Your task to perform on an android device: Add "bose soundsport free" to the cart on bestbuy, then select checkout. Image 0: 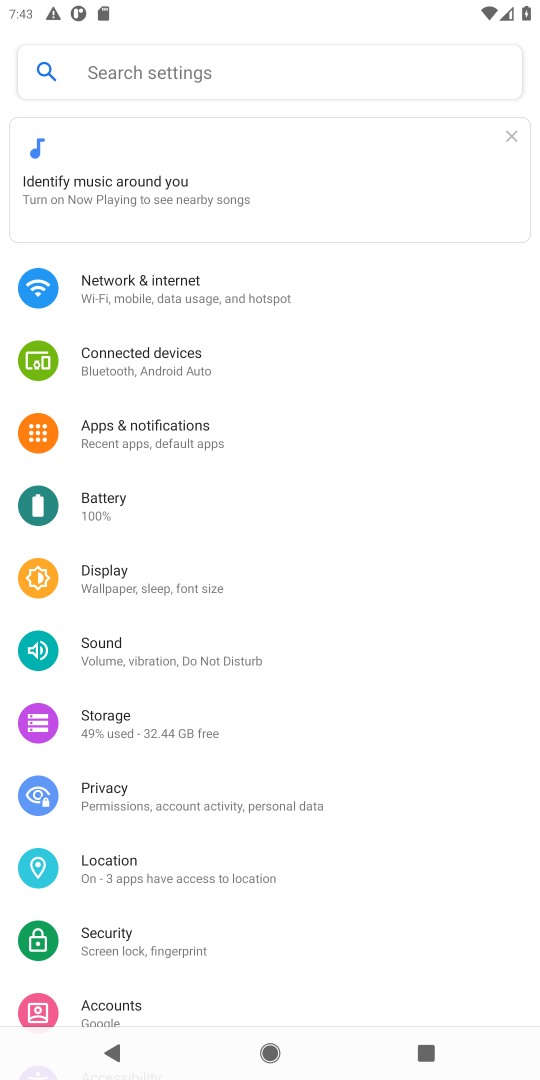
Step 0: press home button
Your task to perform on an android device: Add "bose soundsport free" to the cart on bestbuy, then select checkout. Image 1: 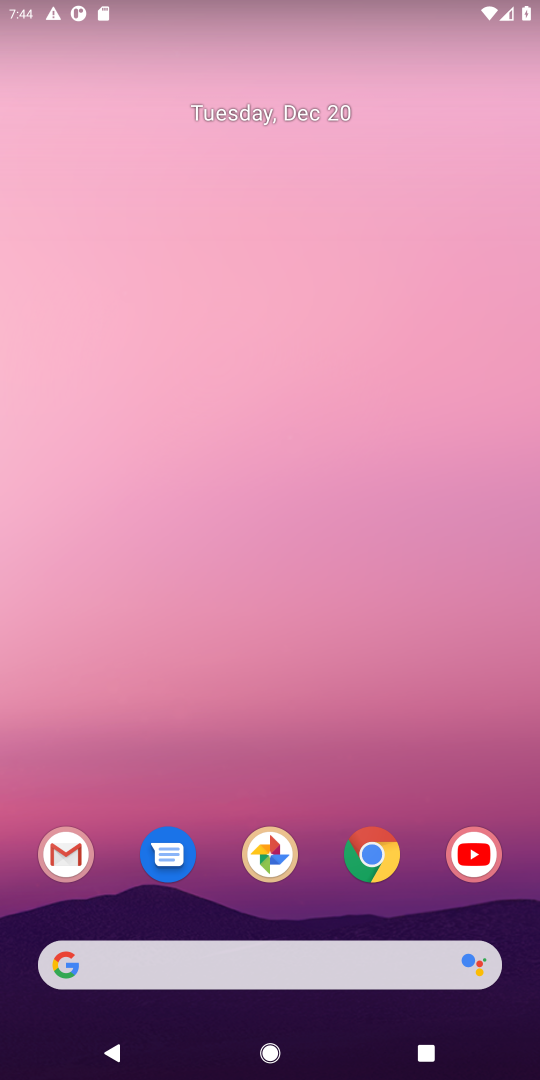
Step 1: click (383, 866)
Your task to perform on an android device: Add "bose soundsport free" to the cart on bestbuy, then select checkout. Image 2: 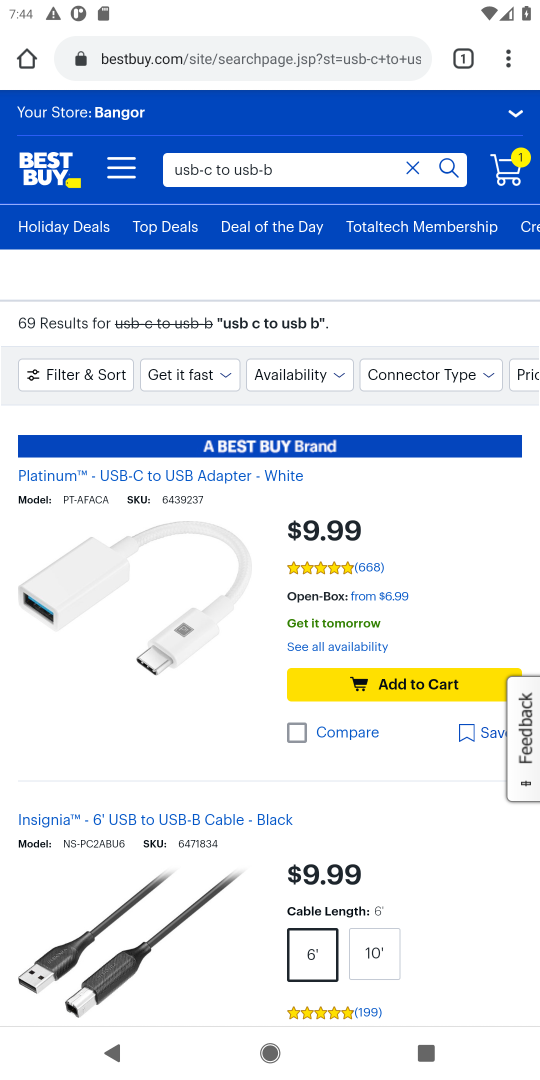
Step 2: click (220, 172)
Your task to perform on an android device: Add "bose soundsport free" to the cart on bestbuy, then select checkout. Image 3: 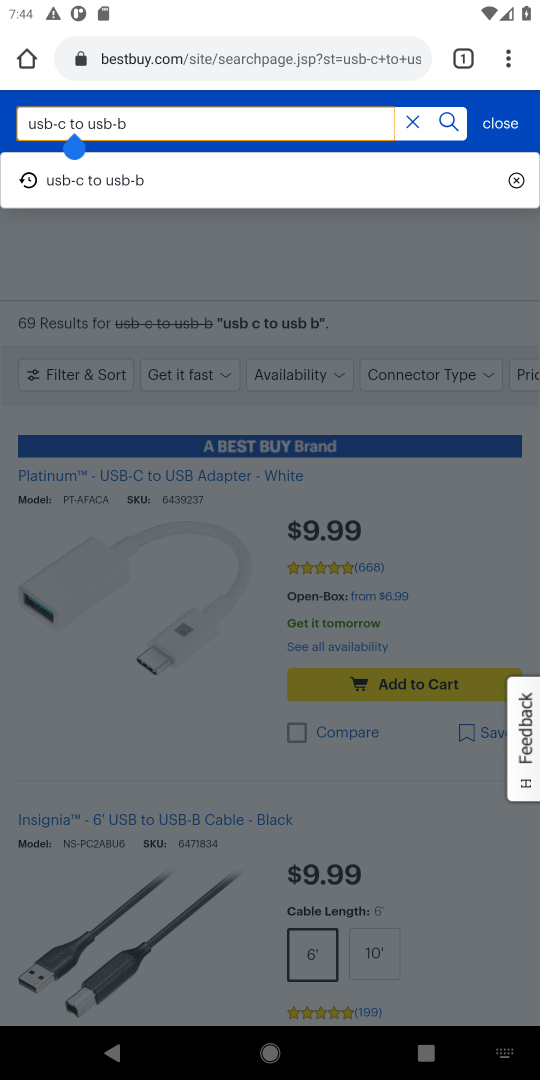
Step 3: click (412, 123)
Your task to perform on an android device: Add "bose soundsport free" to the cart on bestbuy, then select checkout. Image 4: 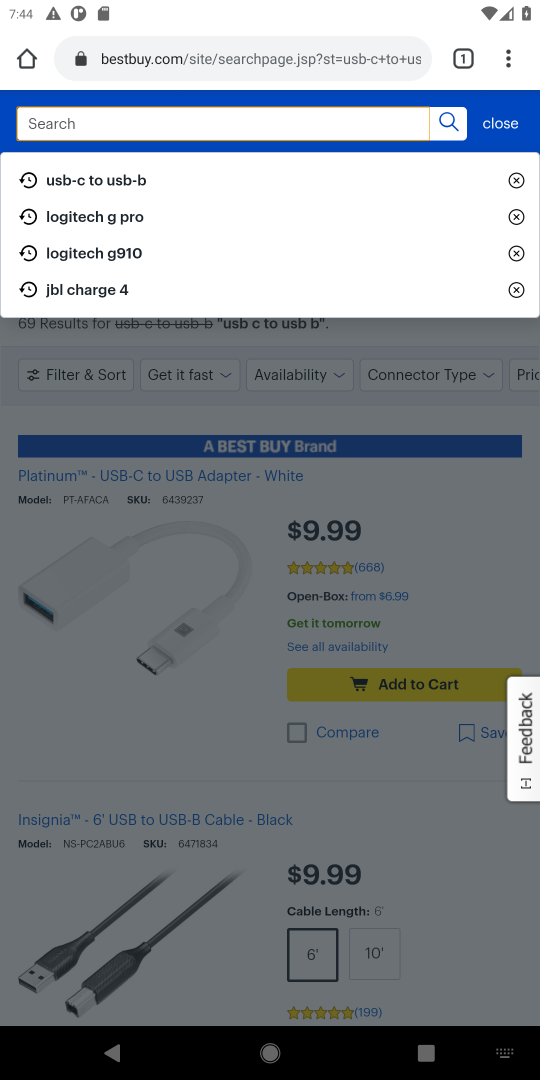
Step 4: type "bose soundsport free"
Your task to perform on an android device: Add "bose soundsport free" to the cart on bestbuy, then select checkout. Image 5: 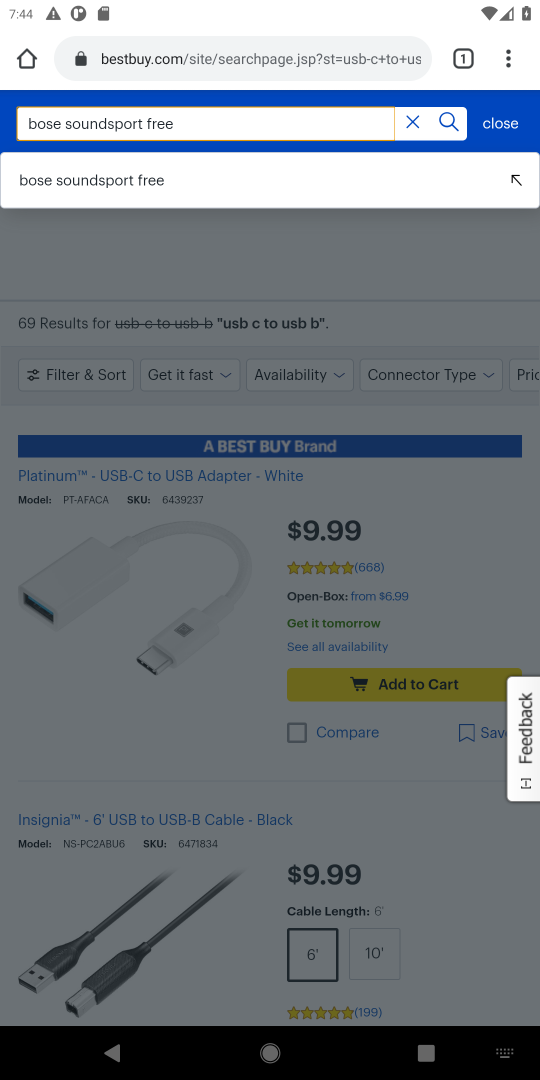
Step 5: click (127, 188)
Your task to perform on an android device: Add "bose soundsport free" to the cart on bestbuy, then select checkout. Image 6: 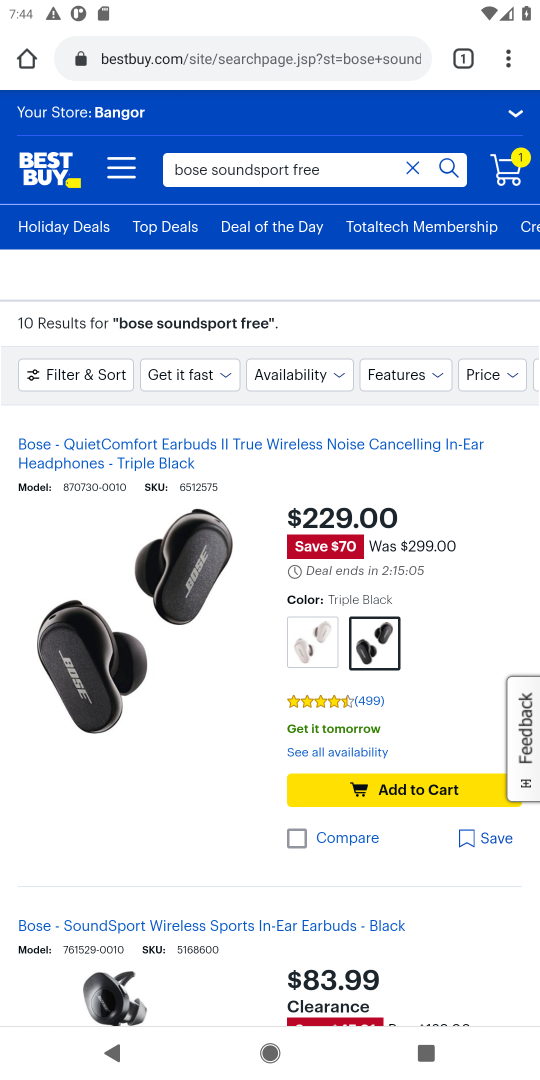
Step 6: drag from (124, 941) to (106, 576)
Your task to perform on an android device: Add "bose soundsport free" to the cart on bestbuy, then select checkout. Image 7: 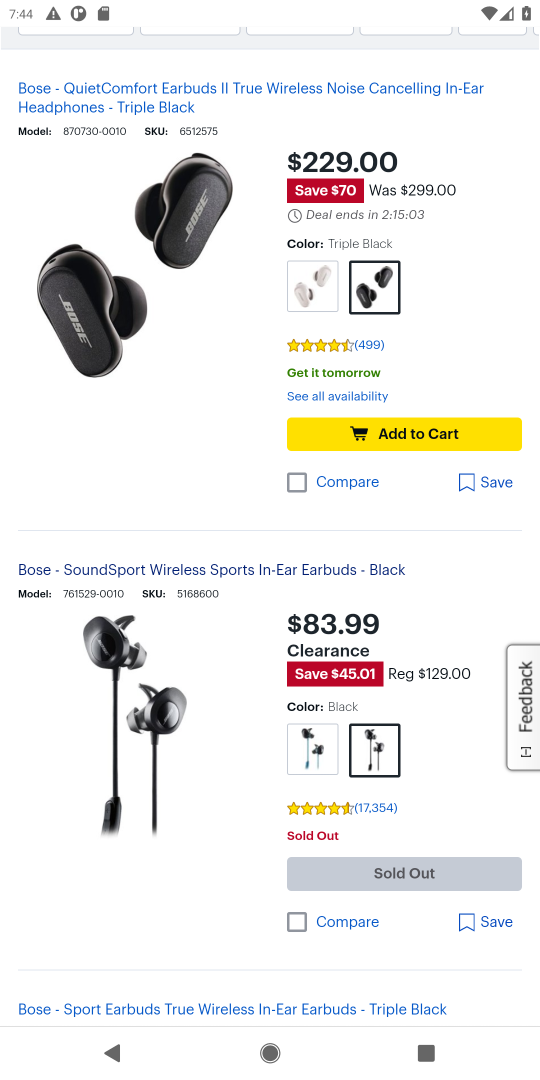
Step 7: drag from (102, 833) to (128, 494)
Your task to perform on an android device: Add "bose soundsport free" to the cart on bestbuy, then select checkout. Image 8: 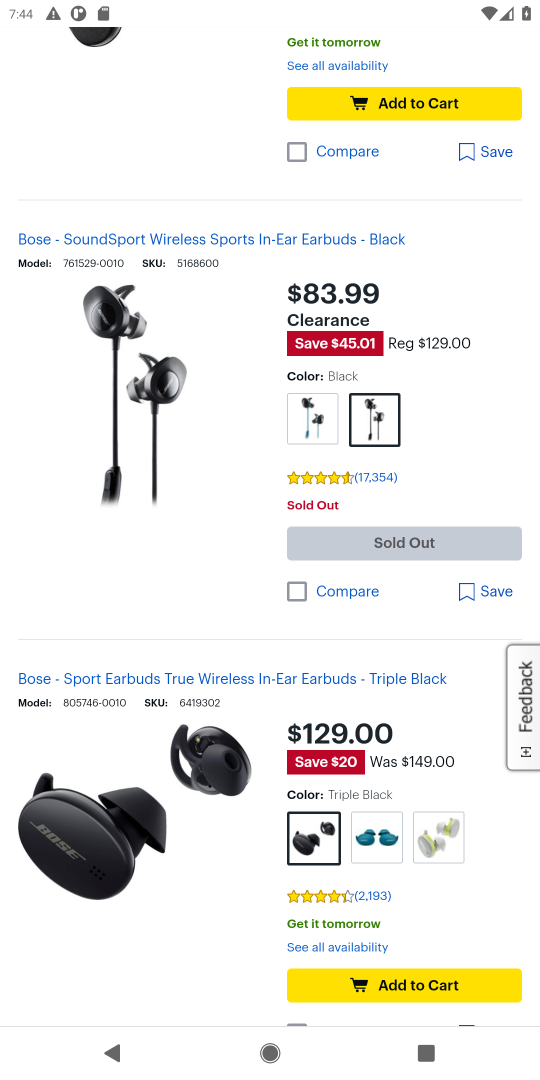
Step 8: drag from (147, 847) to (117, 490)
Your task to perform on an android device: Add "bose soundsport free" to the cart on bestbuy, then select checkout. Image 9: 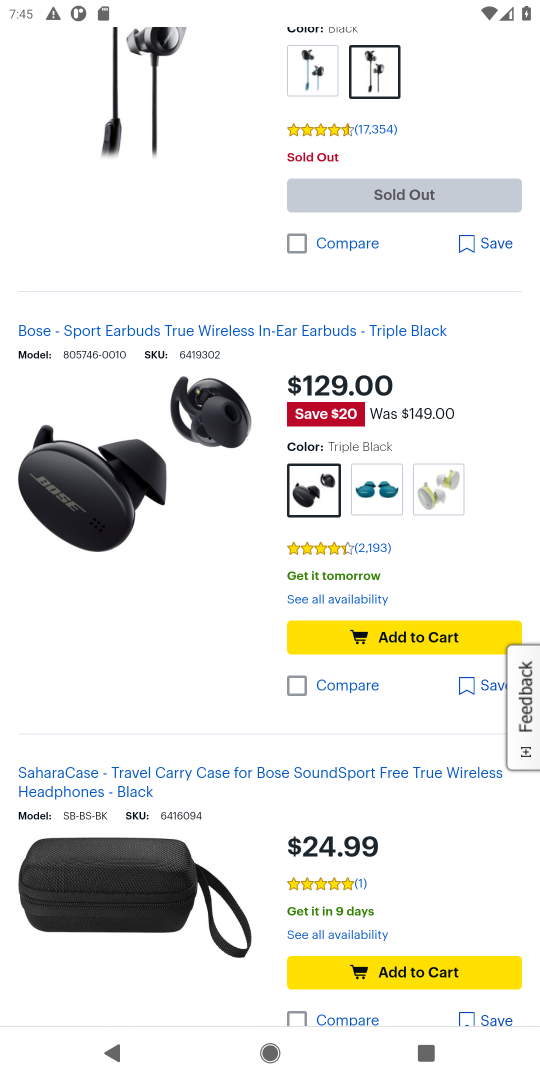
Step 9: click (392, 973)
Your task to perform on an android device: Add "bose soundsport free" to the cart on bestbuy, then select checkout. Image 10: 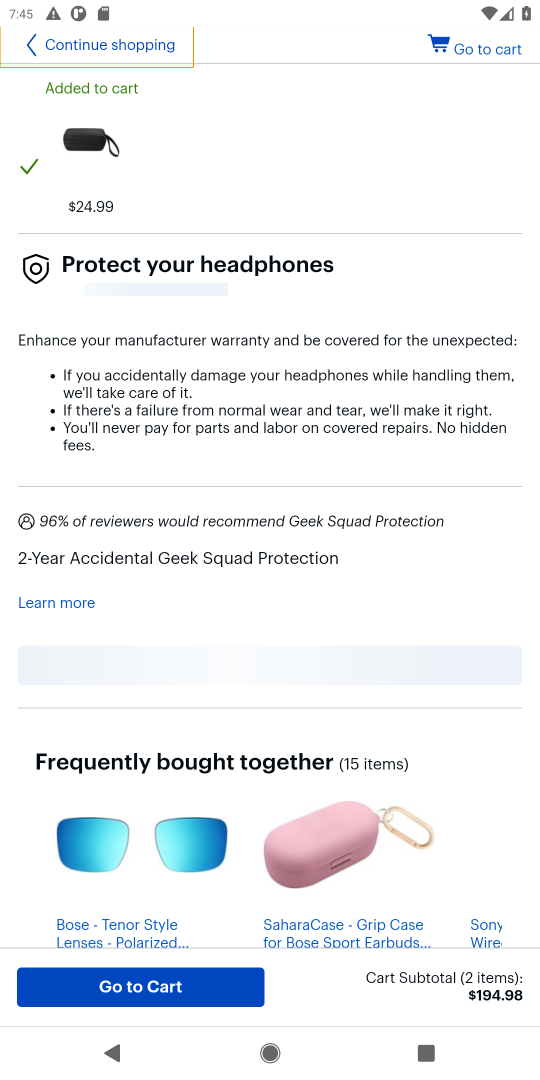
Step 10: click (487, 56)
Your task to perform on an android device: Add "bose soundsport free" to the cart on bestbuy, then select checkout. Image 11: 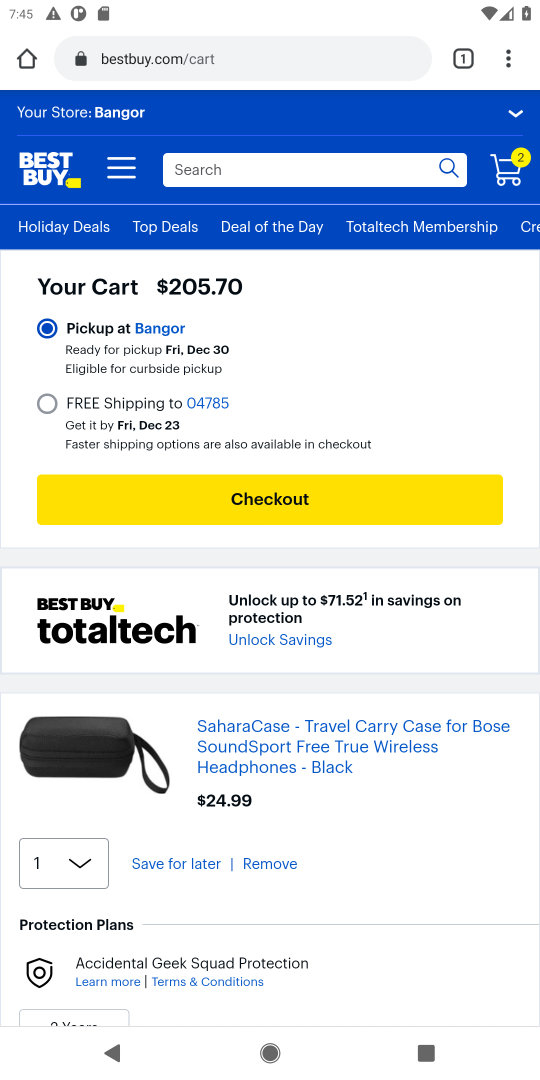
Step 11: click (279, 501)
Your task to perform on an android device: Add "bose soundsport free" to the cart on bestbuy, then select checkout. Image 12: 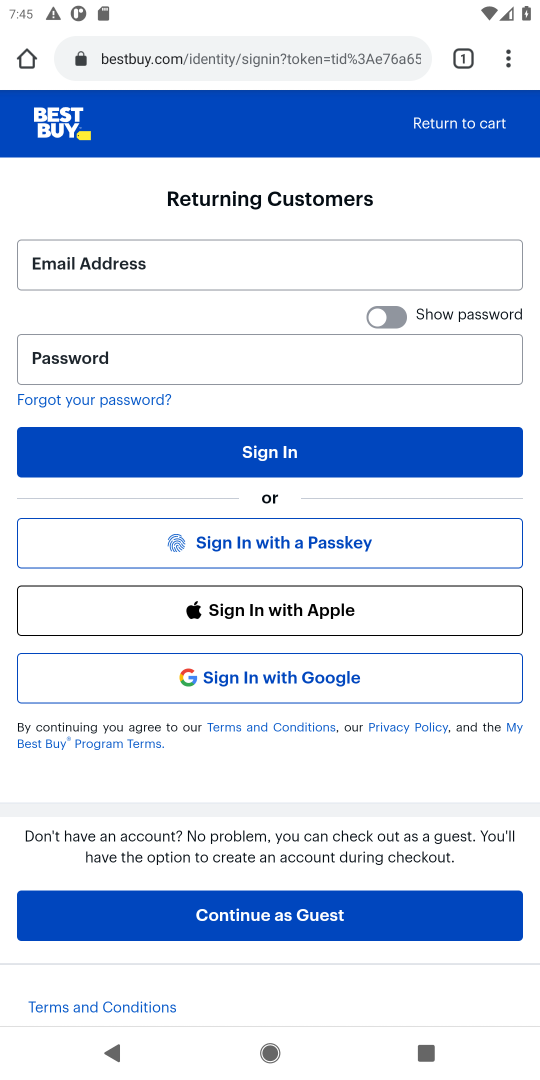
Step 12: task complete